Your task to perform on an android device: snooze an email in the gmail app Image 0: 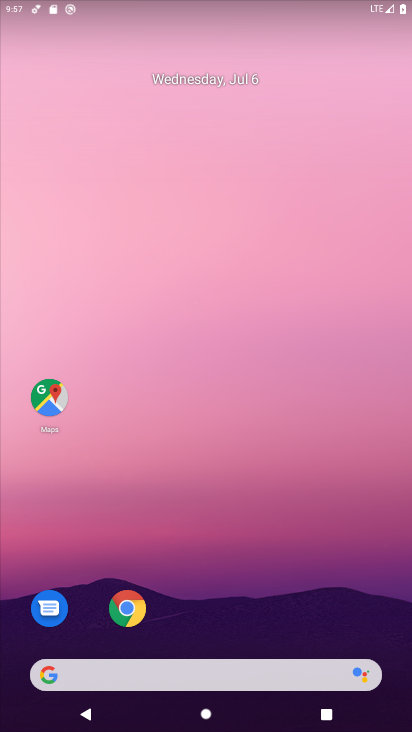
Step 0: drag from (216, 630) to (274, 21)
Your task to perform on an android device: snooze an email in the gmail app Image 1: 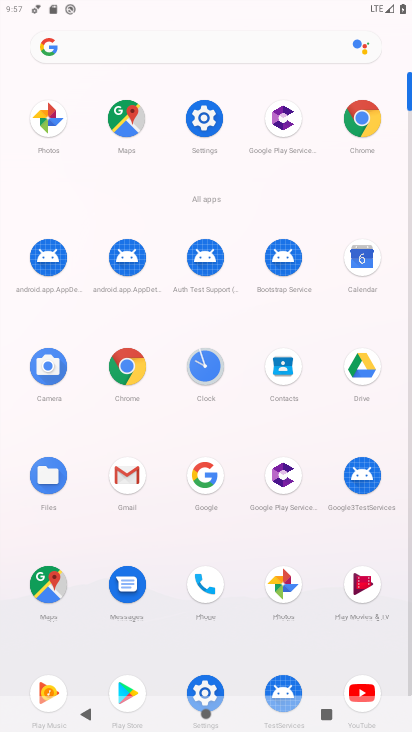
Step 1: click (127, 463)
Your task to perform on an android device: snooze an email in the gmail app Image 2: 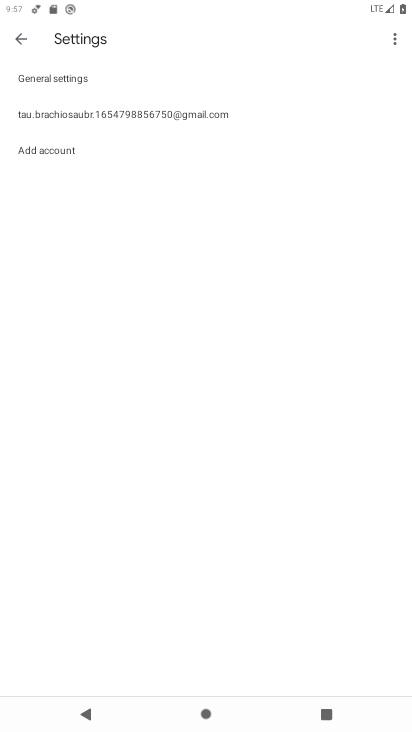
Step 2: click (19, 29)
Your task to perform on an android device: snooze an email in the gmail app Image 3: 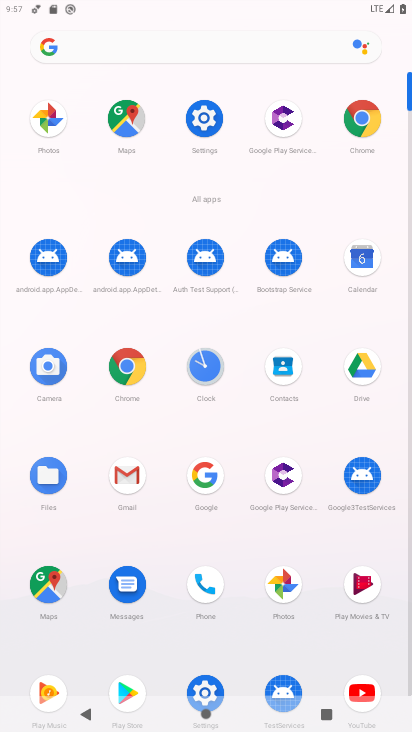
Step 3: click (128, 459)
Your task to perform on an android device: snooze an email in the gmail app Image 4: 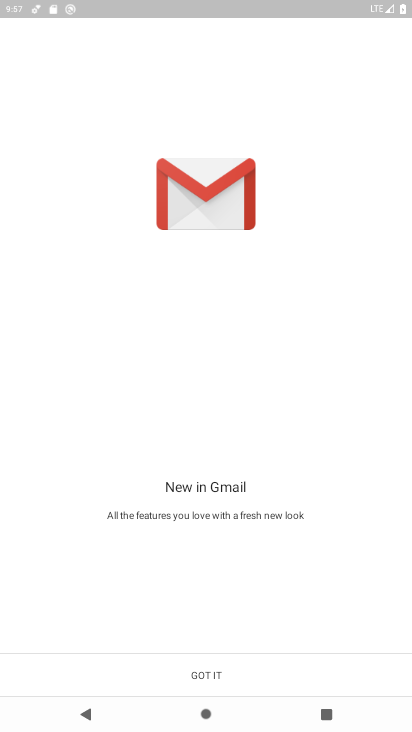
Step 4: click (245, 671)
Your task to perform on an android device: snooze an email in the gmail app Image 5: 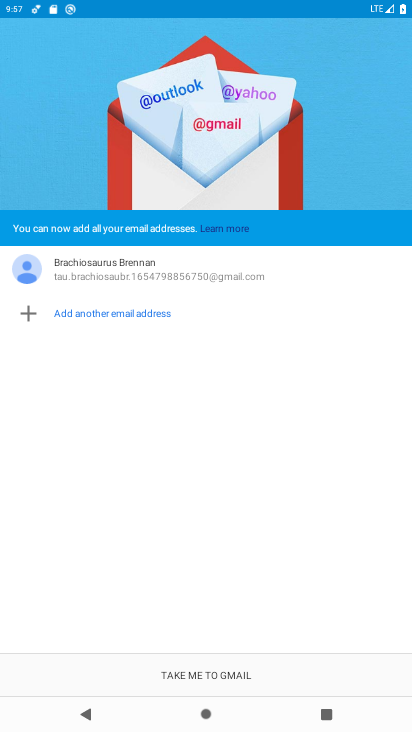
Step 5: click (245, 671)
Your task to perform on an android device: snooze an email in the gmail app Image 6: 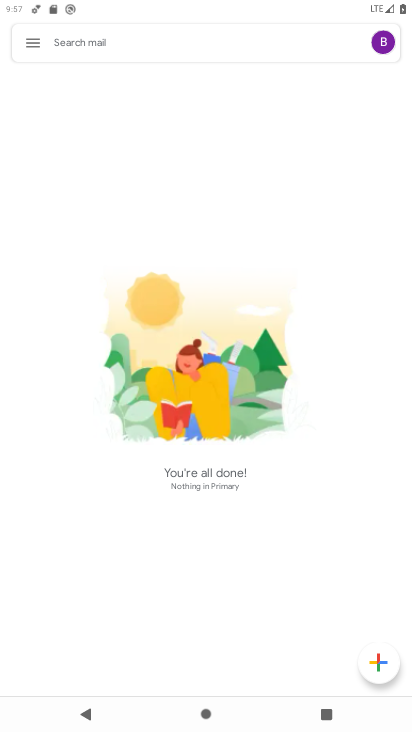
Step 6: task complete